Your task to perform on an android device: Do I have any events today? Image 0: 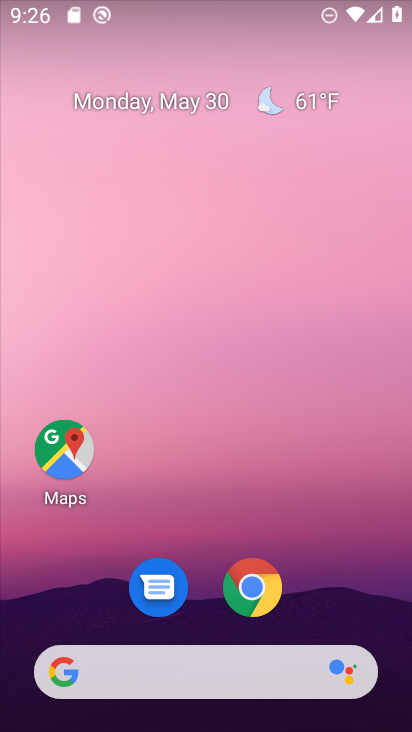
Step 0: click (225, 645)
Your task to perform on an android device: Do I have any events today? Image 1: 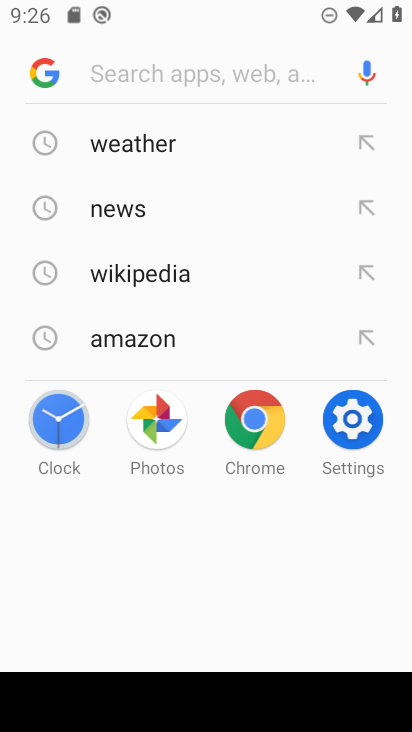
Step 1: press home button
Your task to perform on an android device: Do I have any events today? Image 2: 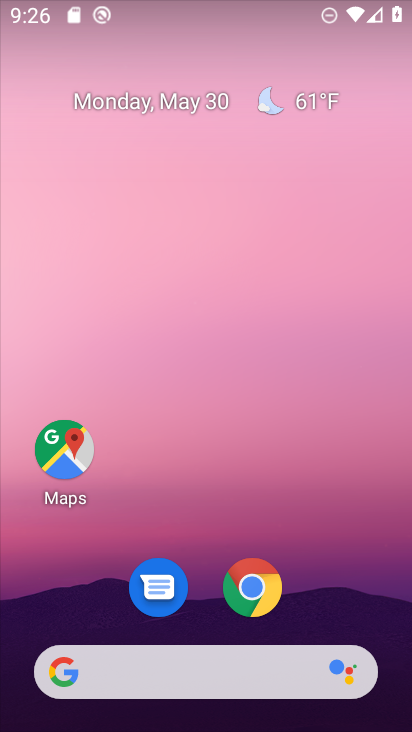
Step 2: drag from (205, 632) to (126, 11)
Your task to perform on an android device: Do I have any events today? Image 3: 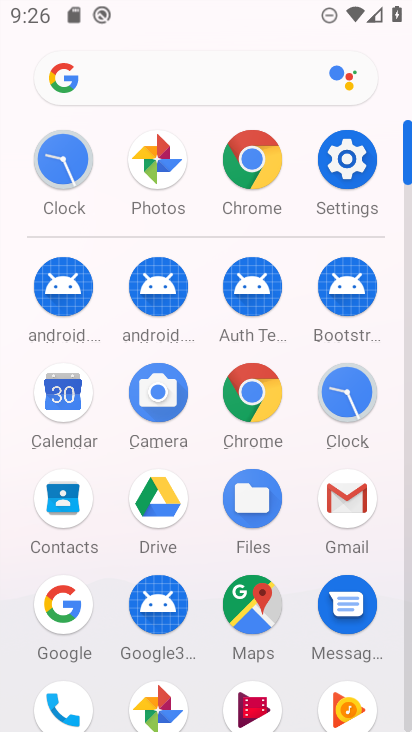
Step 3: click (72, 423)
Your task to perform on an android device: Do I have any events today? Image 4: 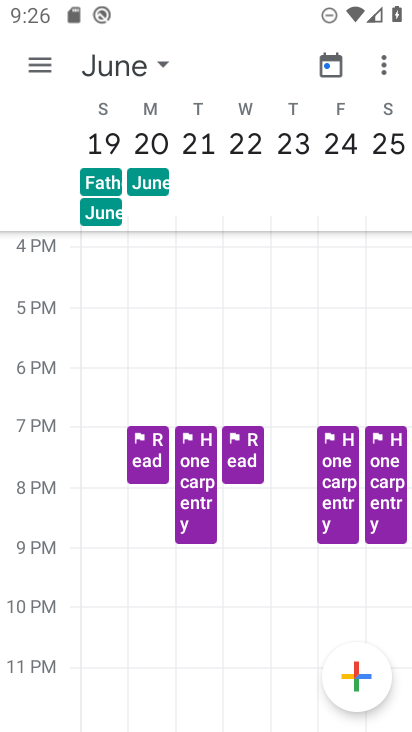
Step 4: click (319, 73)
Your task to perform on an android device: Do I have any events today? Image 5: 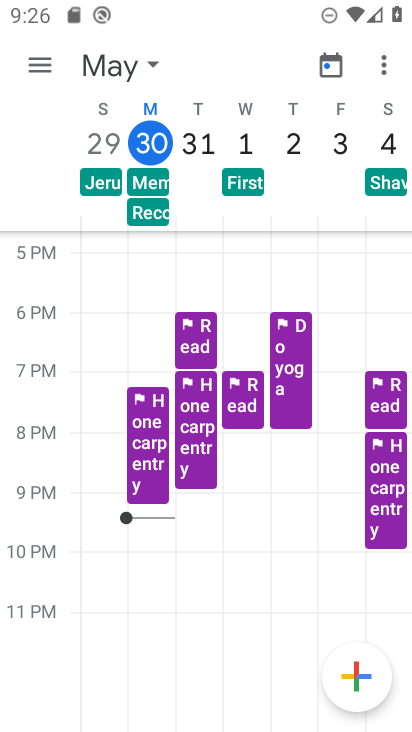
Step 5: click (148, 152)
Your task to perform on an android device: Do I have any events today? Image 6: 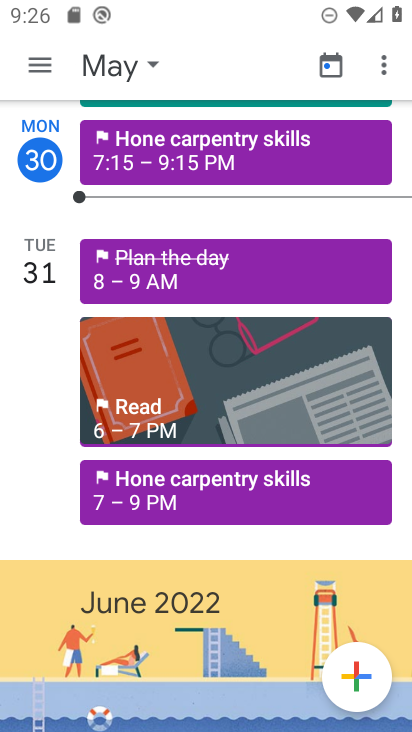
Step 6: task complete